Your task to perform on an android device: Open notification settings Image 0: 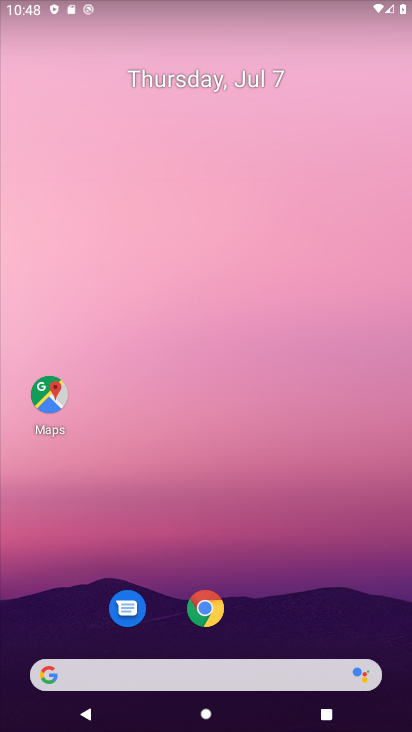
Step 0: drag from (225, 668) to (244, 146)
Your task to perform on an android device: Open notification settings Image 1: 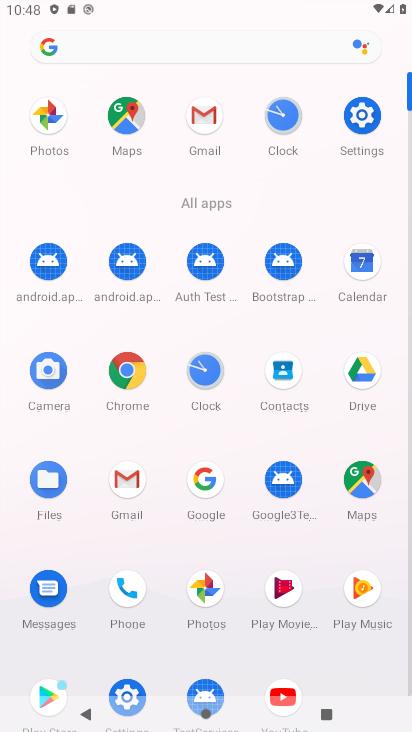
Step 1: click (369, 116)
Your task to perform on an android device: Open notification settings Image 2: 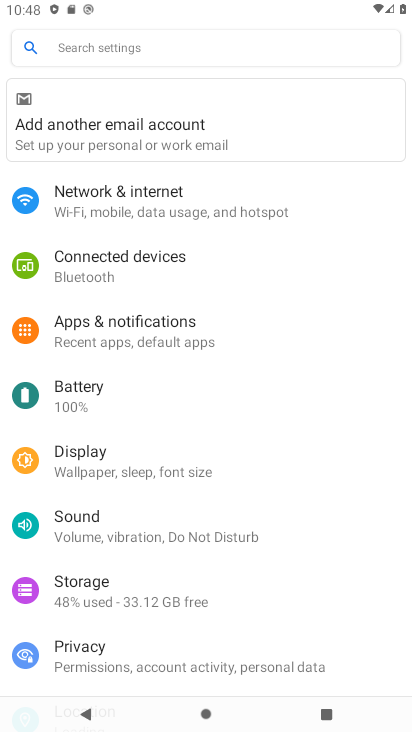
Step 2: click (142, 336)
Your task to perform on an android device: Open notification settings Image 3: 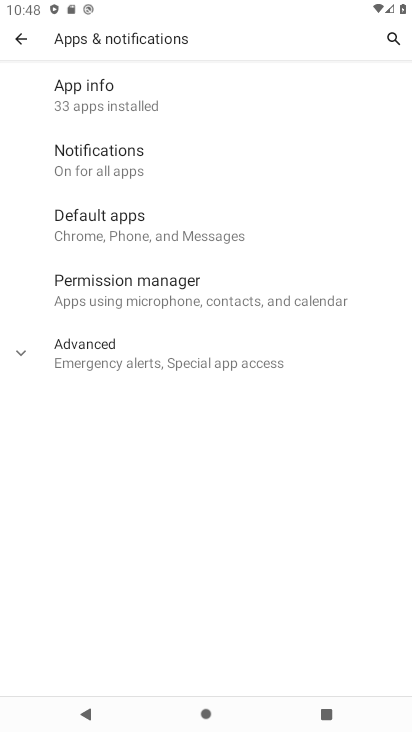
Step 3: click (120, 147)
Your task to perform on an android device: Open notification settings Image 4: 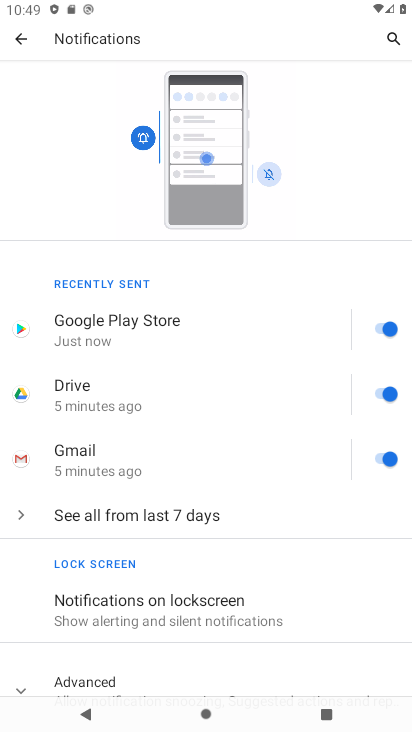
Step 4: task complete